Your task to perform on an android device: Go to CNN.com Image 0: 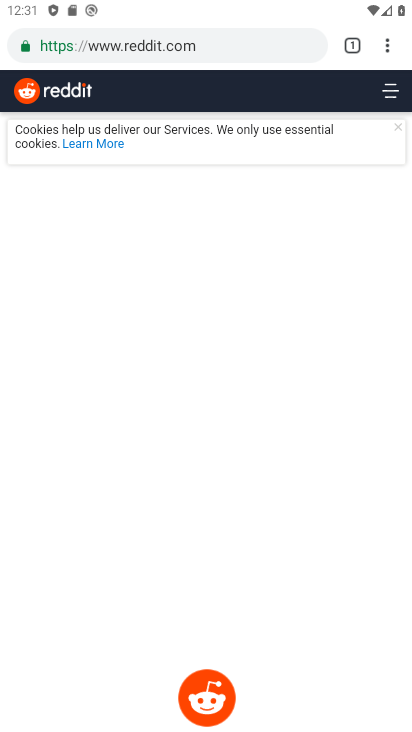
Step 0: click (250, 48)
Your task to perform on an android device: Go to CNN.com Image 1: 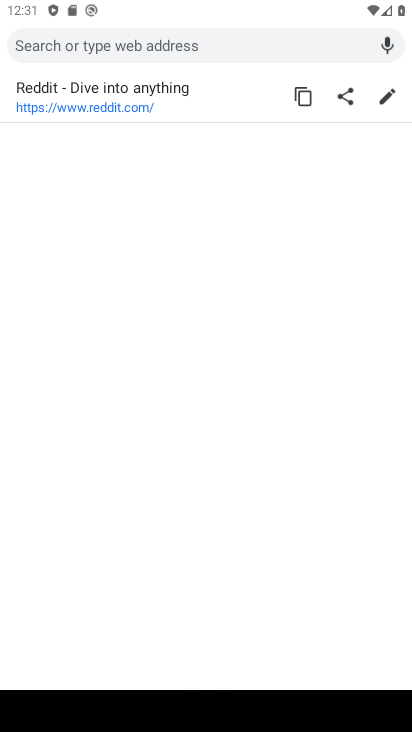
Step 1: type "CNN.com"
Your task to perform on an android device: Go to CNN.com Image 2: 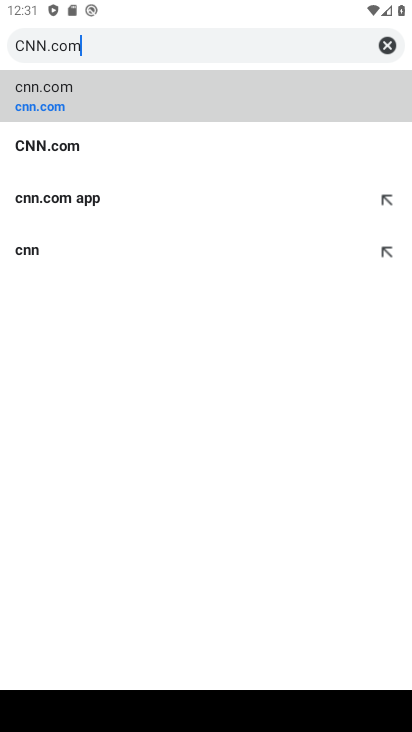
Step 2: type ""
Your task to perform on an android device: Go to CNN.com Image 3: 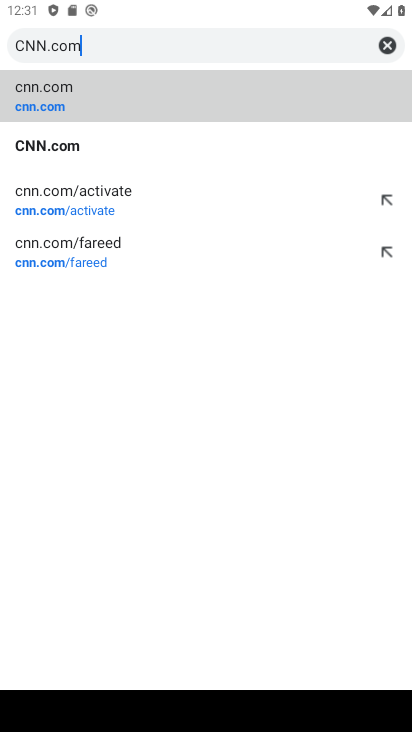
Step 3: click (79, 154)
Your task to perform on an android device: Go to CNN.com Image 4: 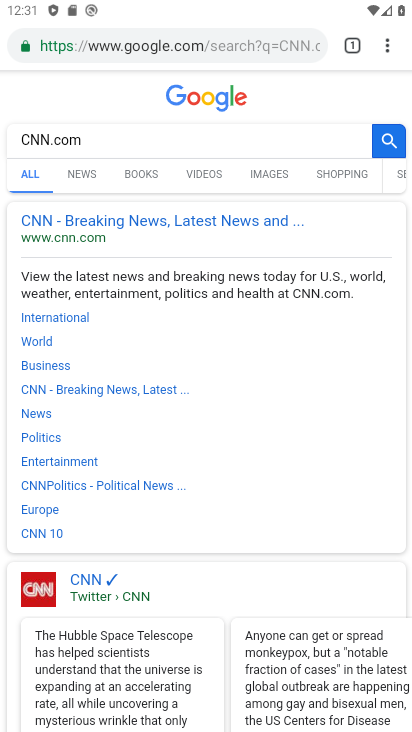
Step 4: click (48, 243)
Your task to perform on an android device: Go to CNN.com Image 5: 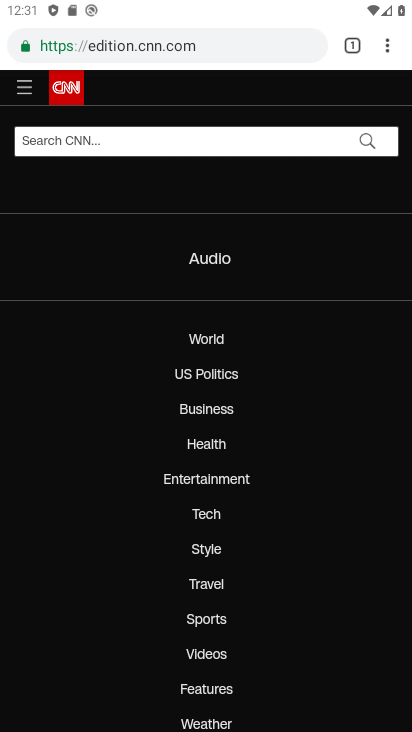
Step 5: task complete